Your task to perform on an android device: Open CNN.com Image 0: 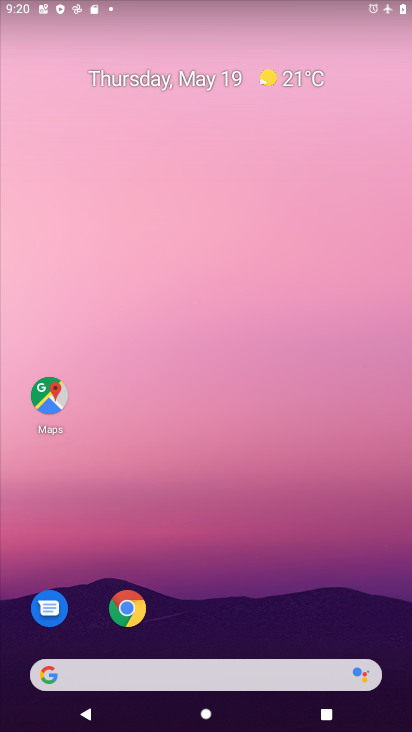
Step 0: click (116, 605)
Your task to perform on an android device: Open CNN.com Image 1: 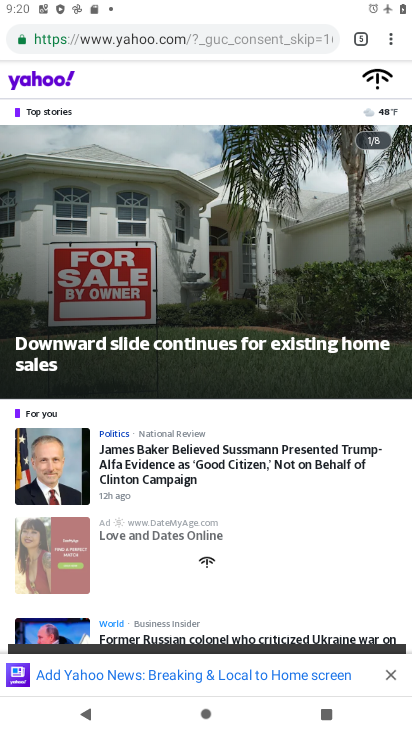
Step 1: click (395, 38)
Your task to perform on an android device: Open CNN.com Image 2: 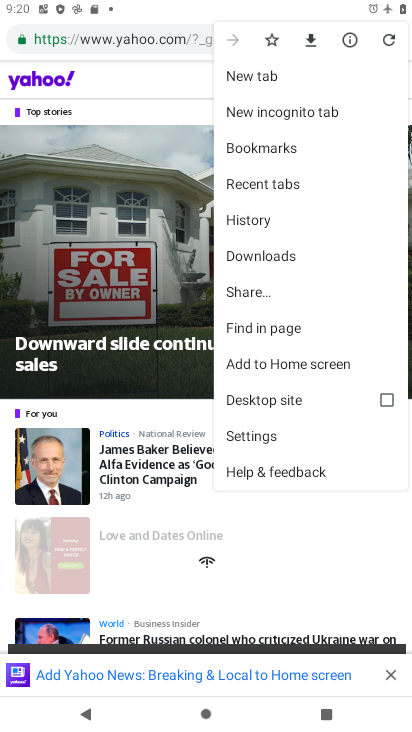
Step 2: click (275, 78)
Your task to perform on an android device: Open CNN.com Image 3: 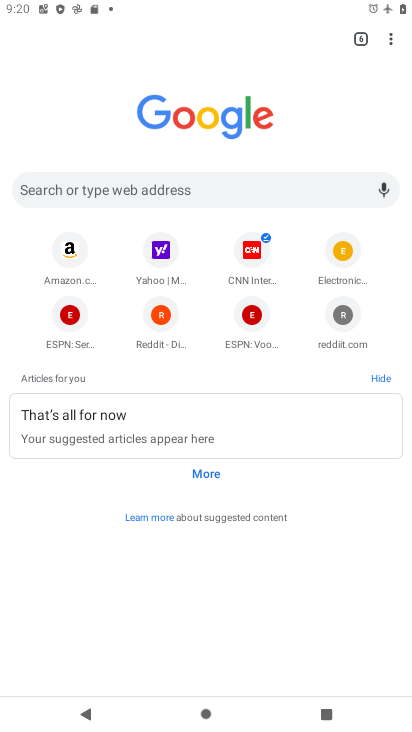
Step 3: click (176, 183)
Your task to perform on an android device: Open CNN.com Image 4: 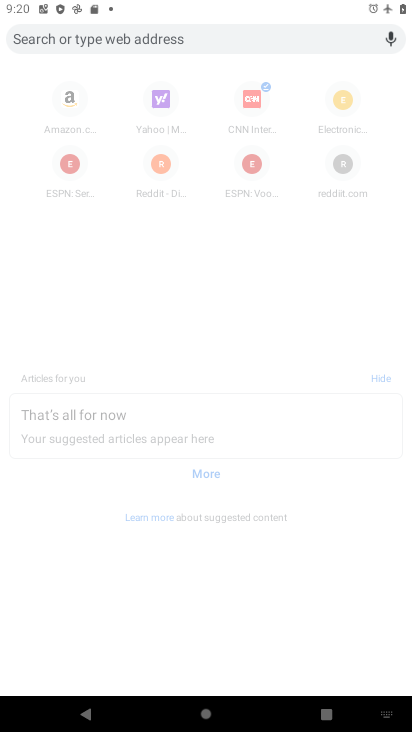
Step 4: type "cnn.com"
Your task to perform on an android device: Open CNN.com Image 5: 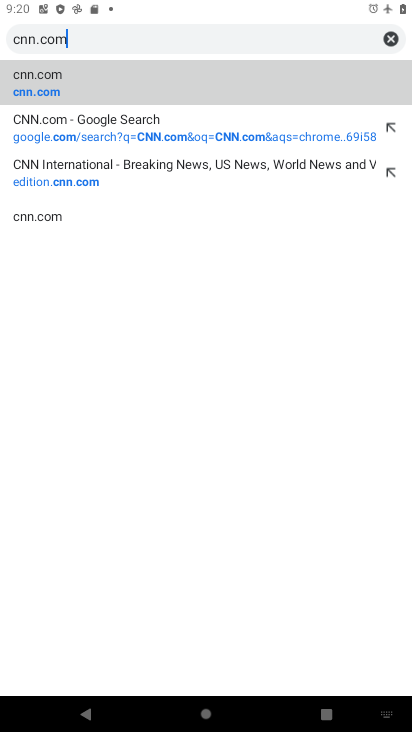
Step 5: click (31, 89)
Your task to perform on an android device: Open CNN.com Image 6: 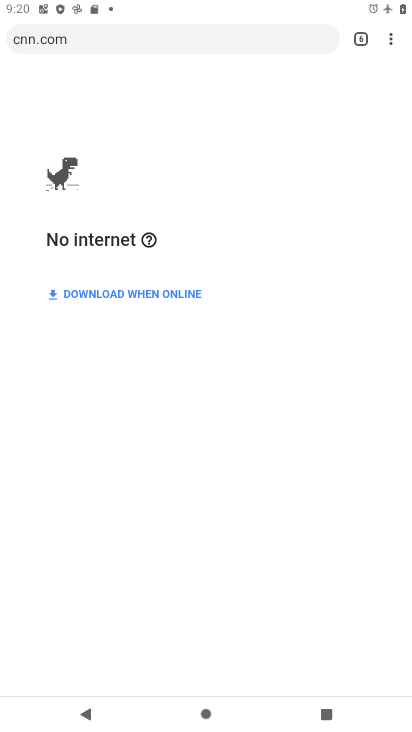
Step 6: task complete